Your task to perform on an android device: Is it going to rain today? Image 0: 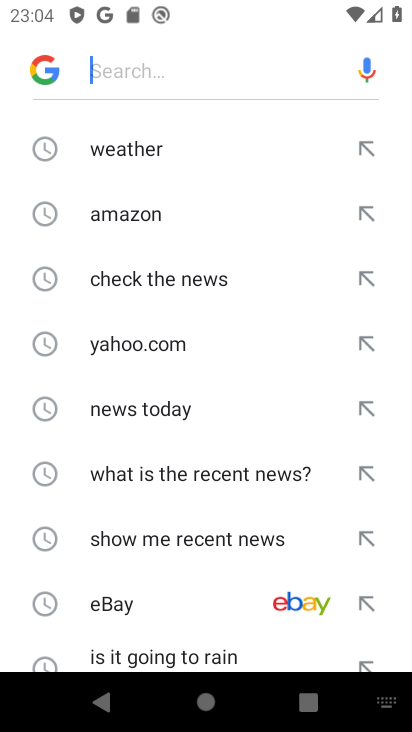
Step 0: press back button
Your task to perform on an android device: Is it going to rain today? Image 1: 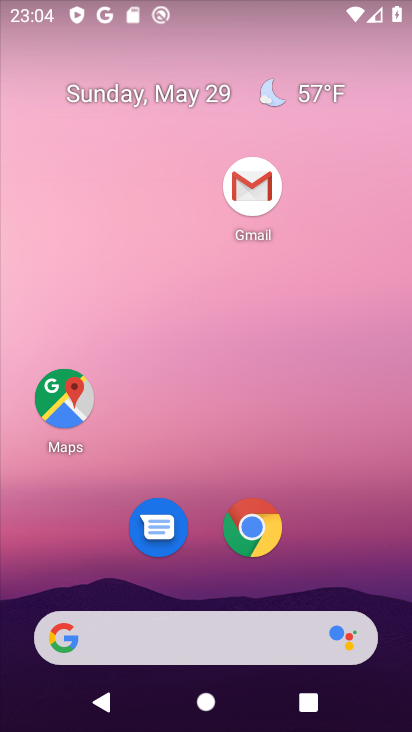
Step 1: drag from (334, 555) to (245, 0)
Your task to perform on an android device: Is it going to rain today? Image 2: 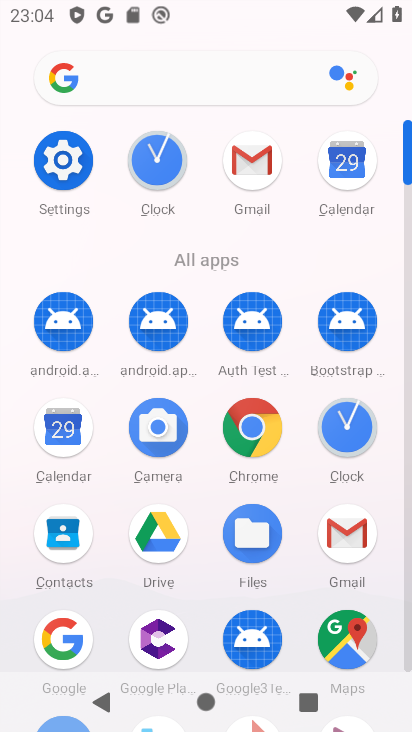
Step 2: click (53, 637)
Your task to perform on an android device: Is it going to rain today? Image 3: 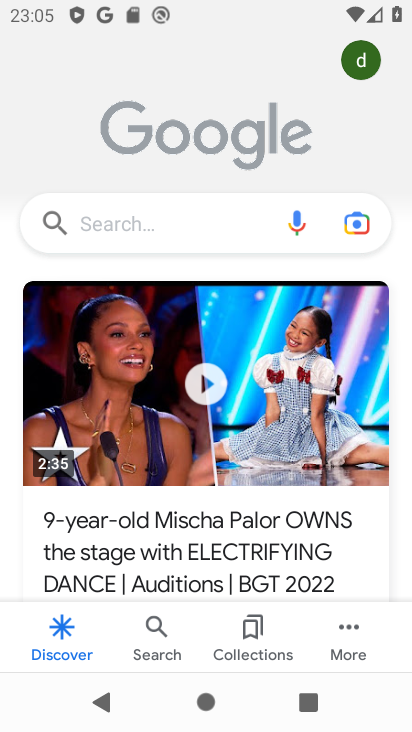
Step 3: click (197, 220)
Your task to perform on an android device: Is it going to rain today? Image 4: 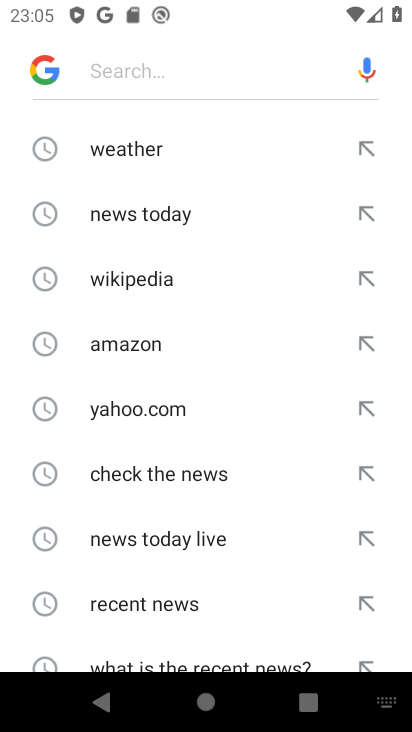
Step 4: type "Is it going to rain today"
Your task to perform on an android device: Is it going to rain today? Image 5: 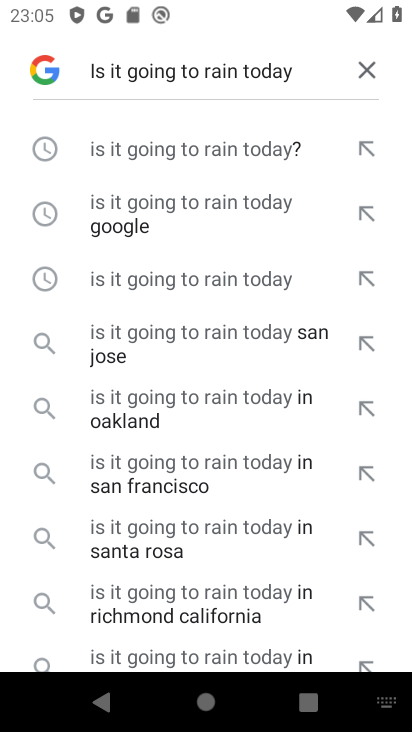
Step 5: click (163, 148)
Your task to perform on an android device: Is it going to rain today? Image 6: 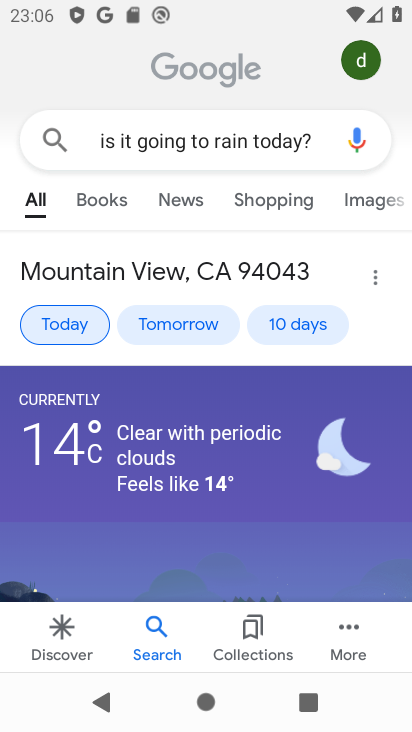
Step 6: task complete